Your task to perform on an android device: Open internet settings Image 0: 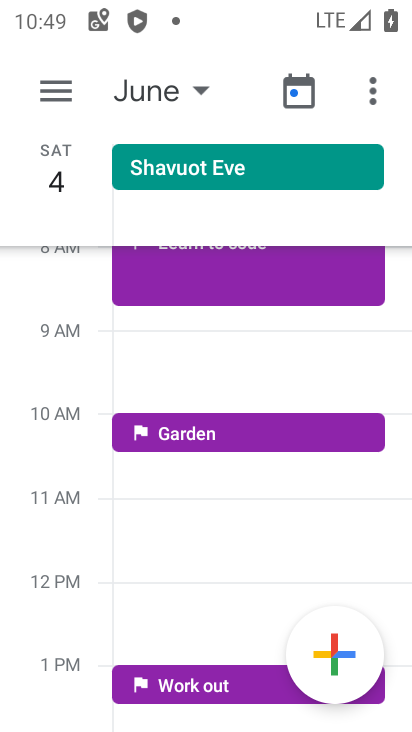
Step 0: press home button
Your task to perform on an android device: Open internet settings Image 1: 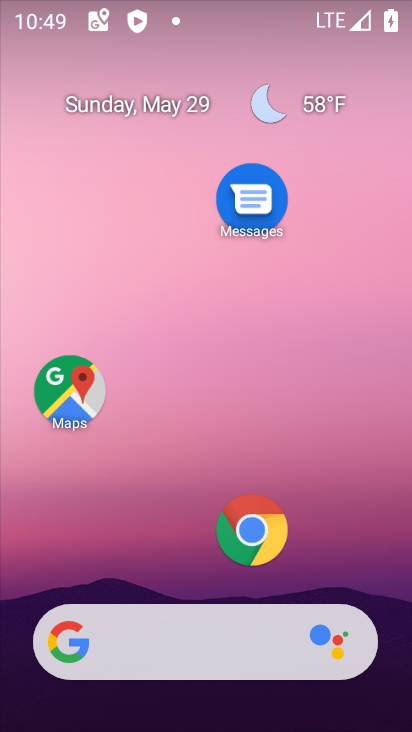
Step 1: drag from (200, 589) to (225, 171)
Your task to perform on an android device: Open internet settings Image 2: 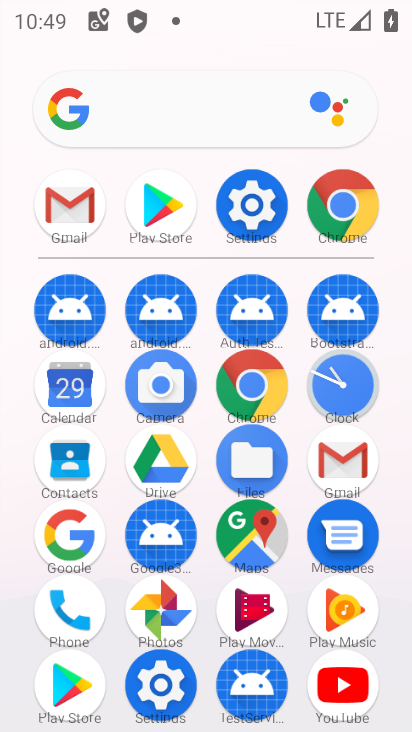
Step 2: click (274, 189)
Your task to perform on an android device: Open internet settings Image 3: 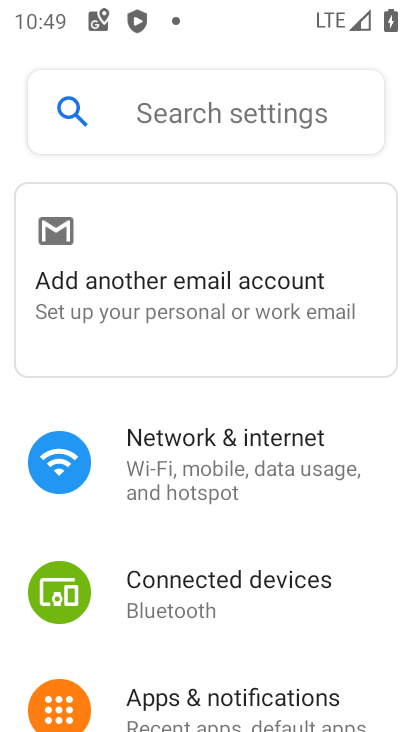
Step 3: click (243, 450)
Your task to perform on an android device: Open internet settings Image 4: 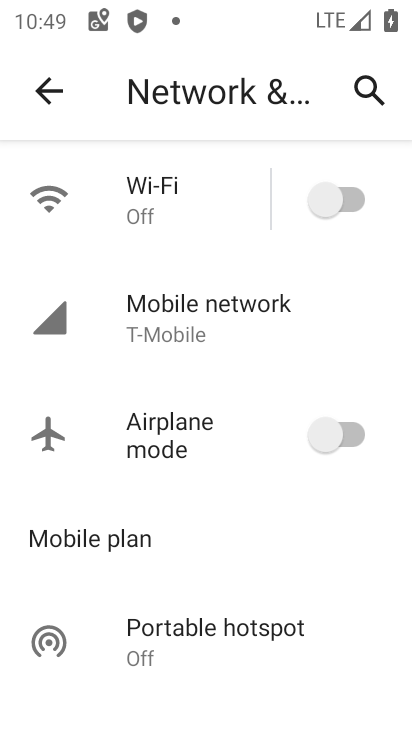
Step 4: task complete